Your task to perform on an android device: turn on location history Image 0: 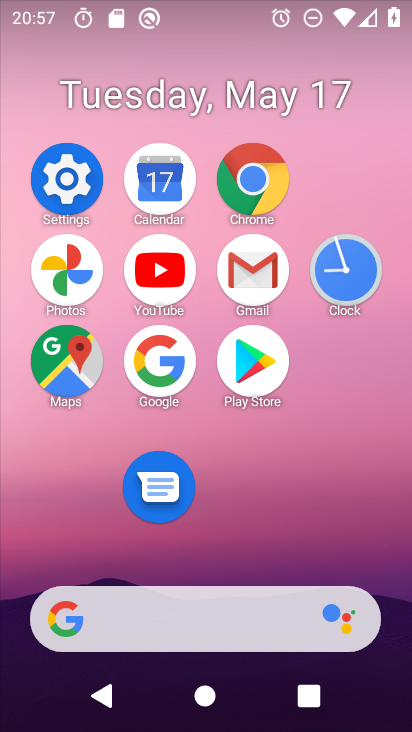
Step 0: click (62, 192)
Your task to perform on an android device: turn on location history Image 1: 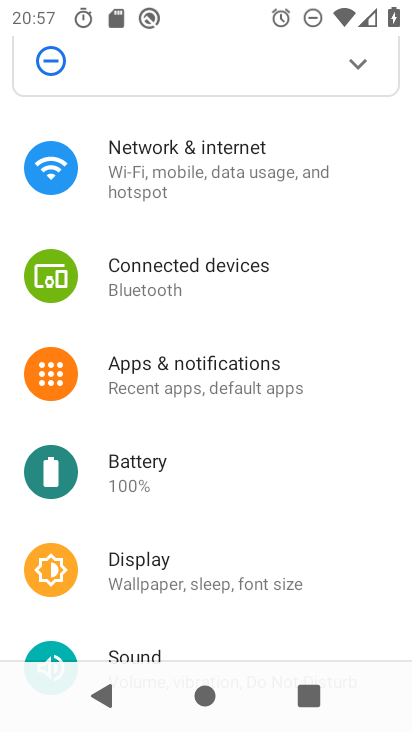
Step 1: drag from (237, 556) to (234, 195)
Your task to perform on an android device: turn on location history Image 2: 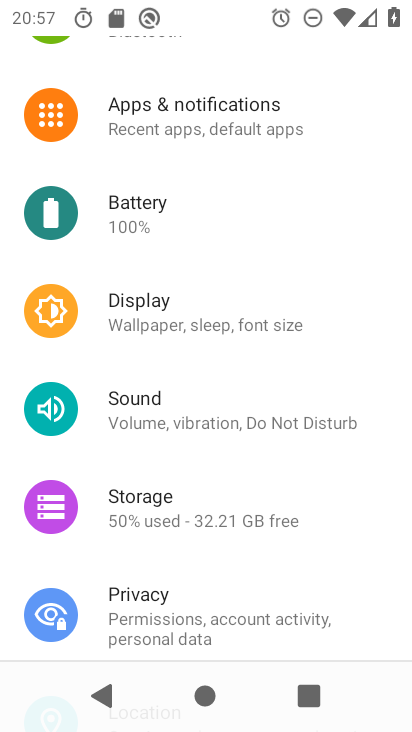
Step 2: drag from (202, 568) to (235, 276)
Your task to perform on an android device: turn on location history Image 3: 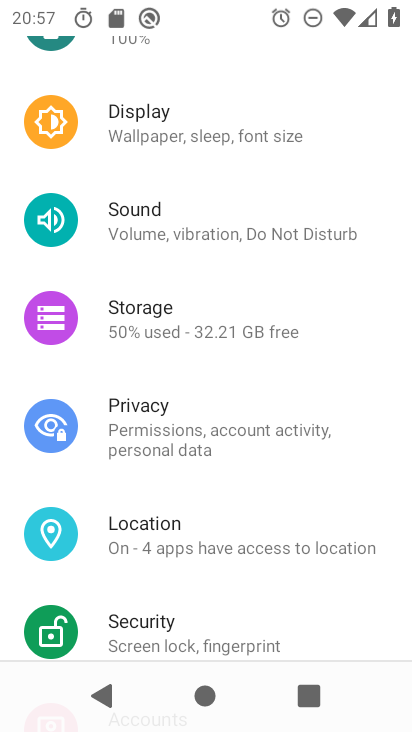
Step 3: click (188, 542)
Your task to perform on an android device: turn on location history Image 4: 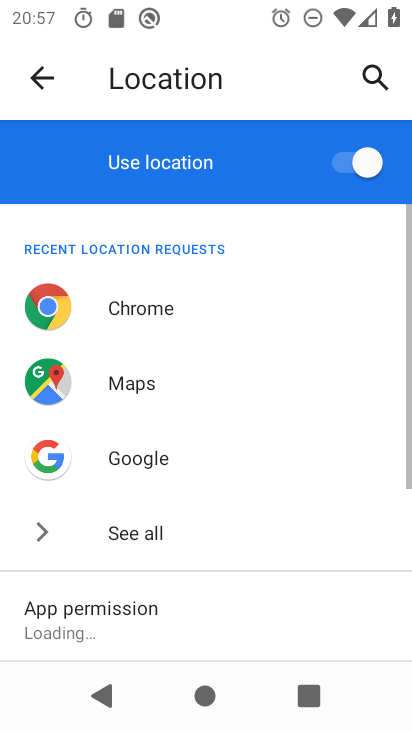
Step 4: drag from (202, 589) to (227, 239)
Your task to perform on an android device: turn on location history Image 5: 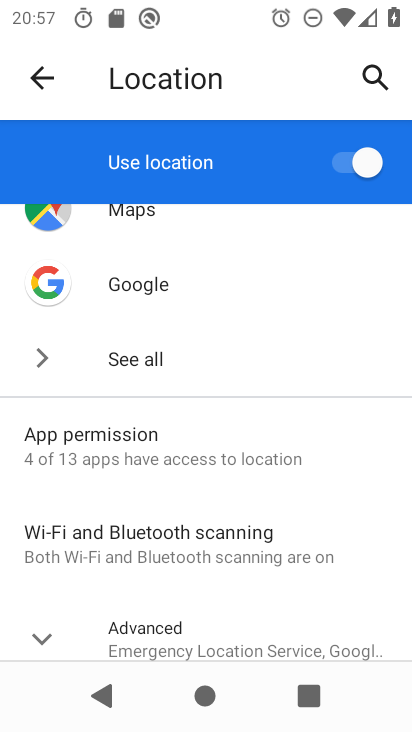
Step 5: click (187, 620)
Your task to perform on an android device: turn on location history Image 6: 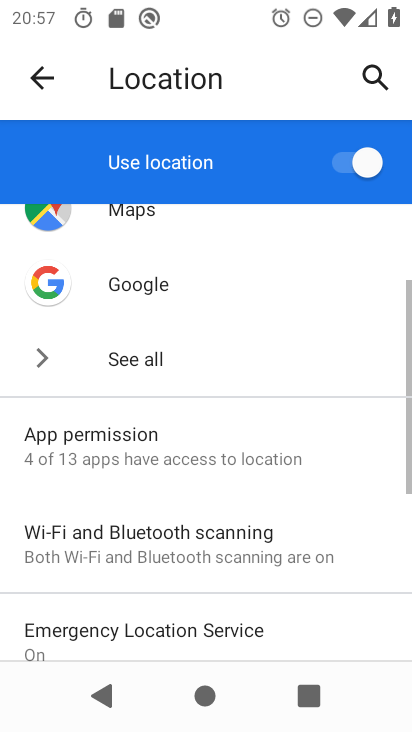
Step 6: drag from (187, 620) to (198, 243)
Your task to perform on an android device: turn on location history Image 7: 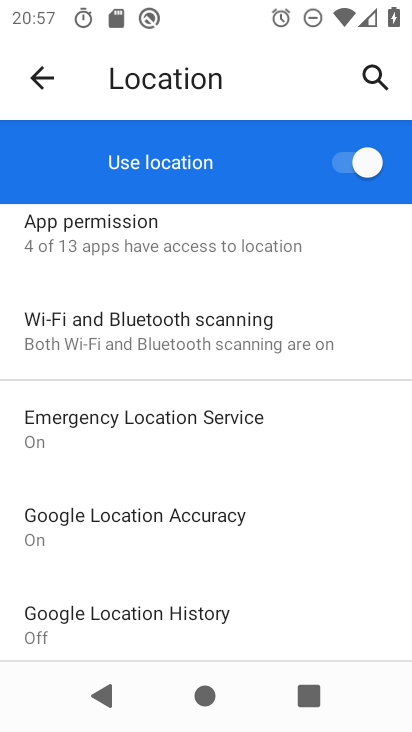
Step 7: click (191, 601)
Your task to perform on an android device: turn on location history Image 8: 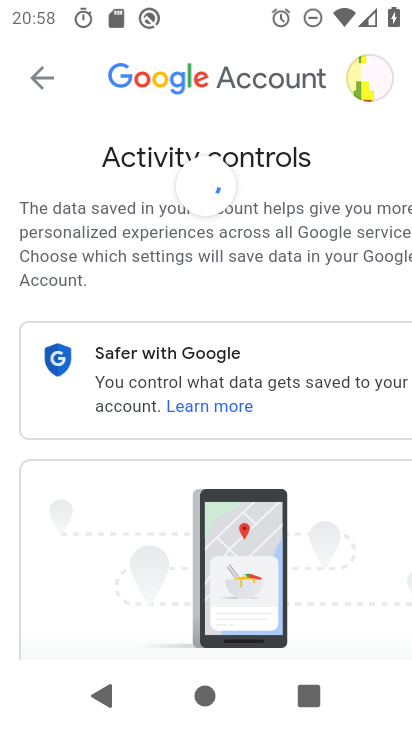
Step 8: drag from (176, 583) to (215, 225)
Your task to perform on an android device: turn on location history Image 9: 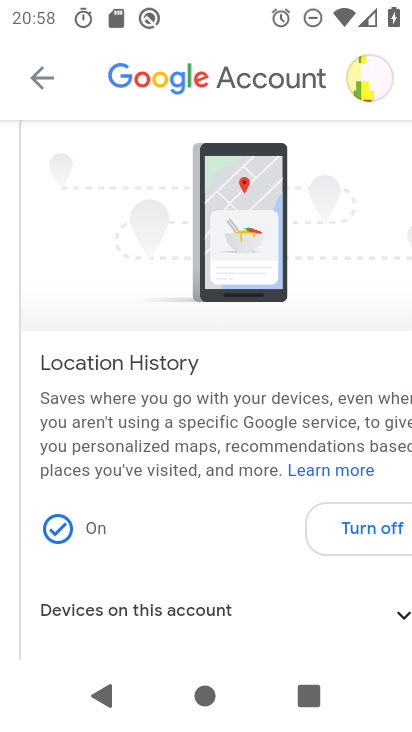
Step 9: click (56, 520)
Your task to perform on an android device: turn on location history Image 10: 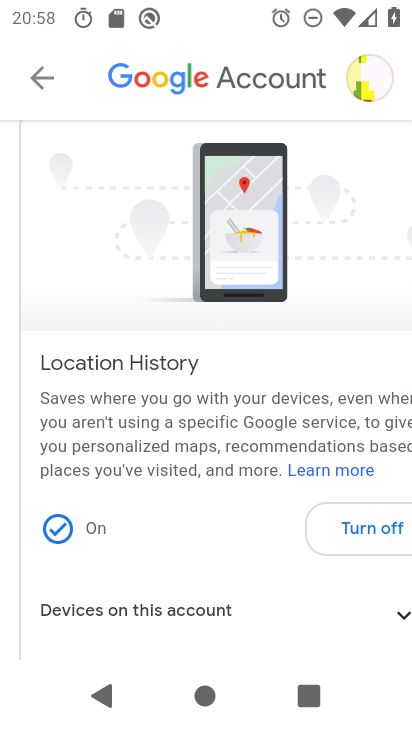
Step 10: task complete